Your task to perform on an android device: Open Wikipedia Image 0: 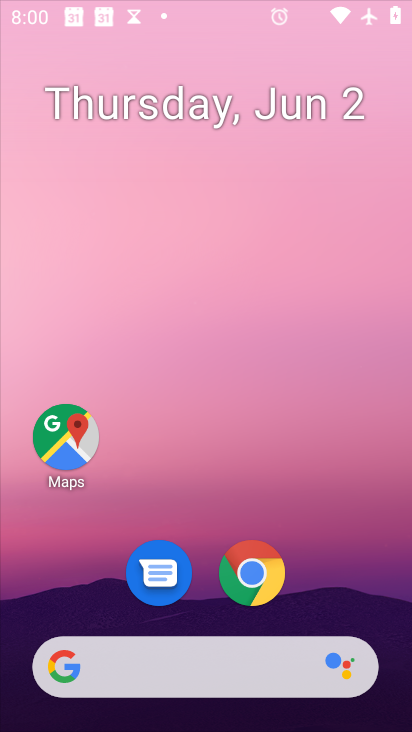
Step 0: press home button
Your task to perform on an android device: Open Wikipedia Image 1: 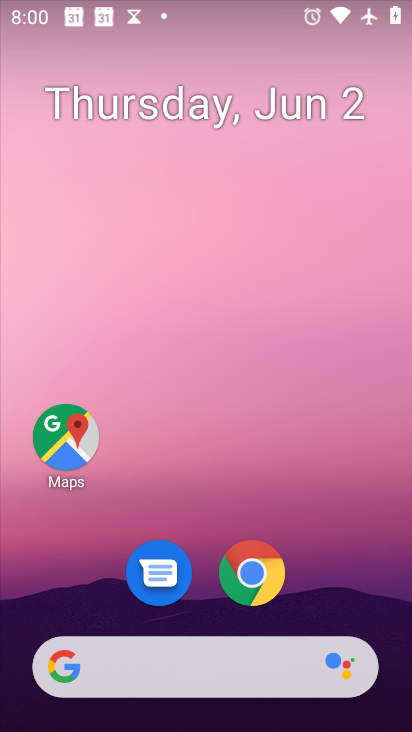
Step 1: drag from (180, 667) to (312, 104)
Your task to perform on an android device: Open Wikipedia Image 2: 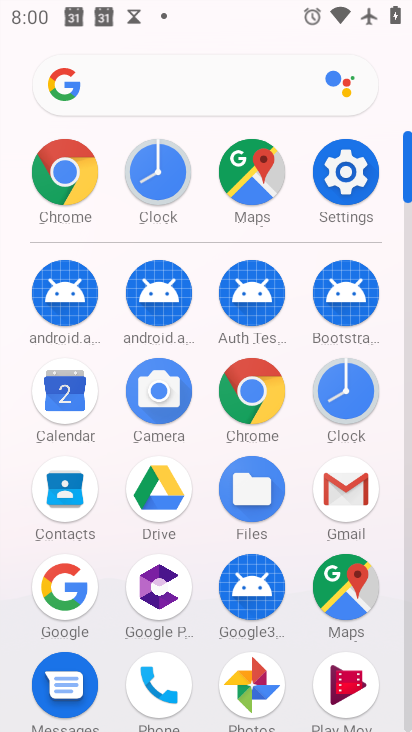
Step 2: click (75, 173)
Your task to perform on an android device: Open Wikipedia Image 3: 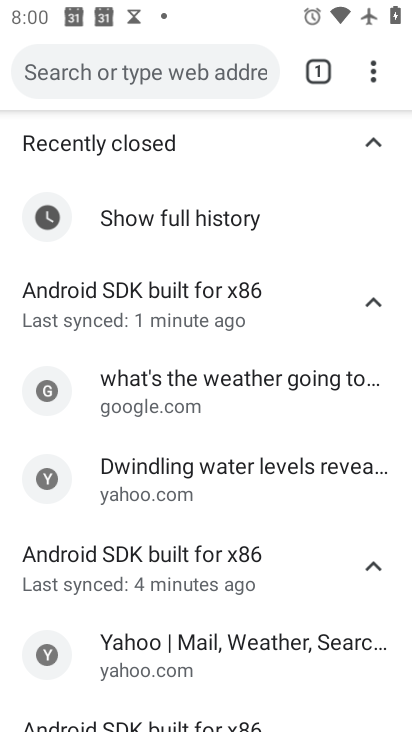
Step 3: drag from (373, 78) to (238, 140)
Your task to perform on an android device: Open Wikipedia Image 4: 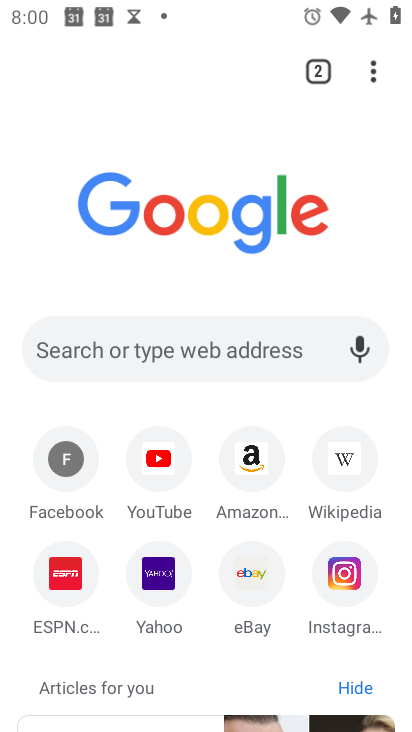
Step 4: click (341, 456)
Your task to perform on an android device: Open Wikipedia Image 5: 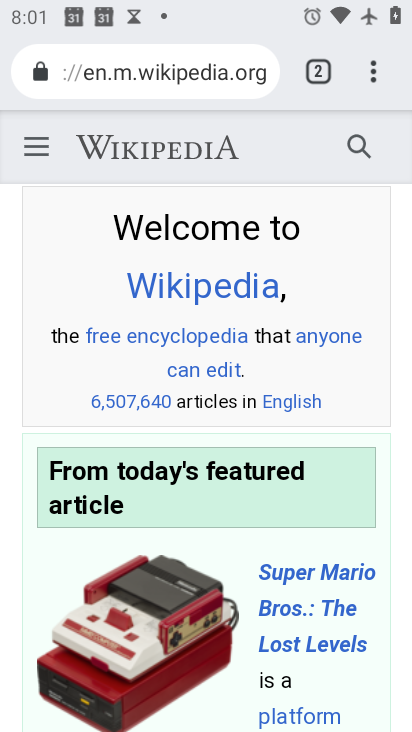
Step 5: task complete